Your task to perform on an android device: Open accessibility settings Image 0: 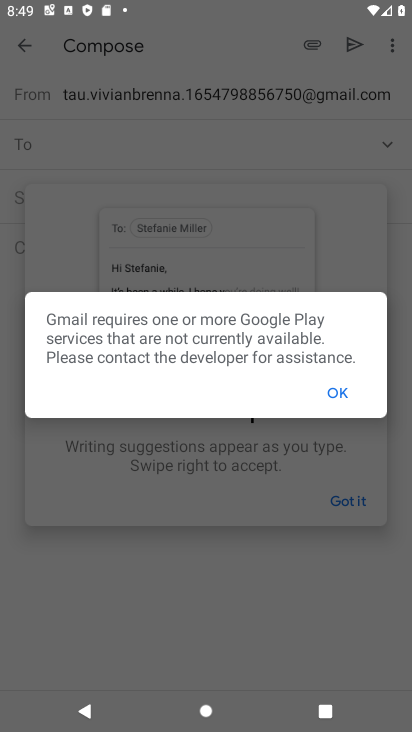
Step 0: press home button
Your task to perform on an android device: Open accessibility settings Image 1: 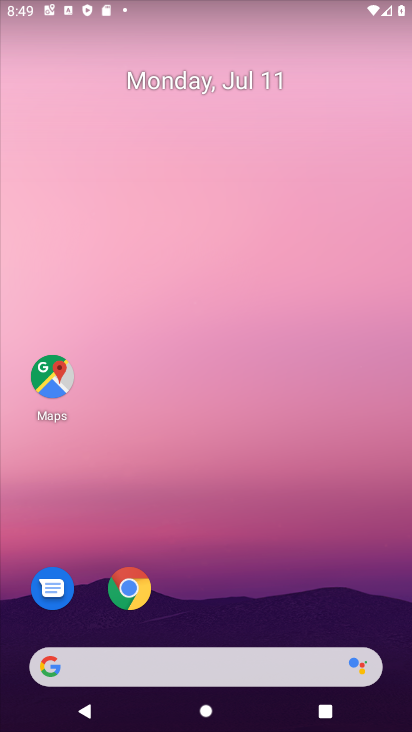
Step 1: drag from (365, 646) to (253, 87)
Your task to perform on an android device: Open accessibility settings Image 2: 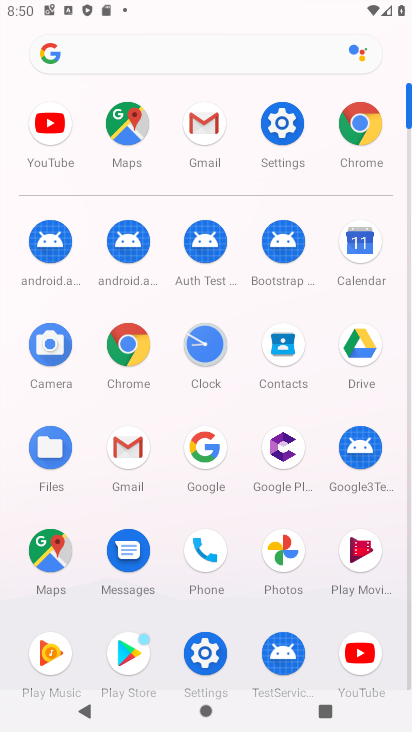
Step 2: click (202, 636)
Your task to perform on an android device: Open accessibility settings Image 3: 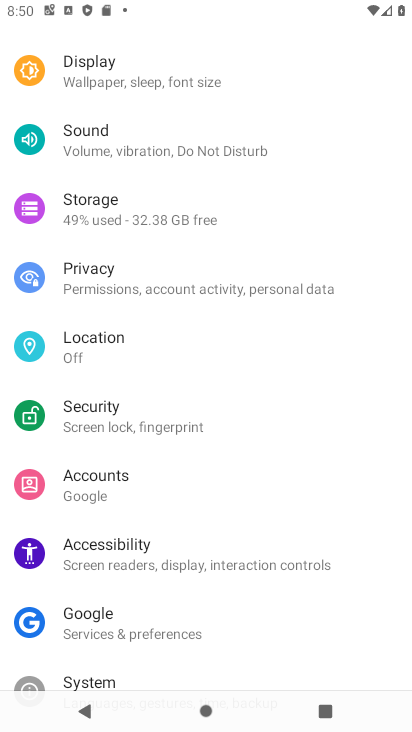
Step 3: click (159, 557)
Your task to perform on an android device: Open accessibility settings Image 4: 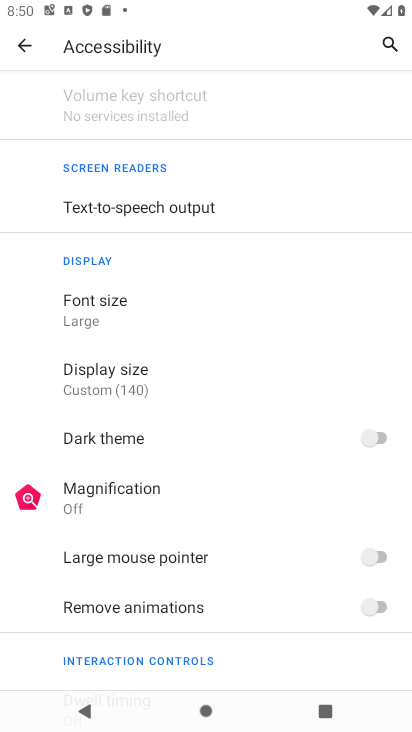
Step 4: task complete